Your task to perform on an android device: change text size in settings app Image 0: 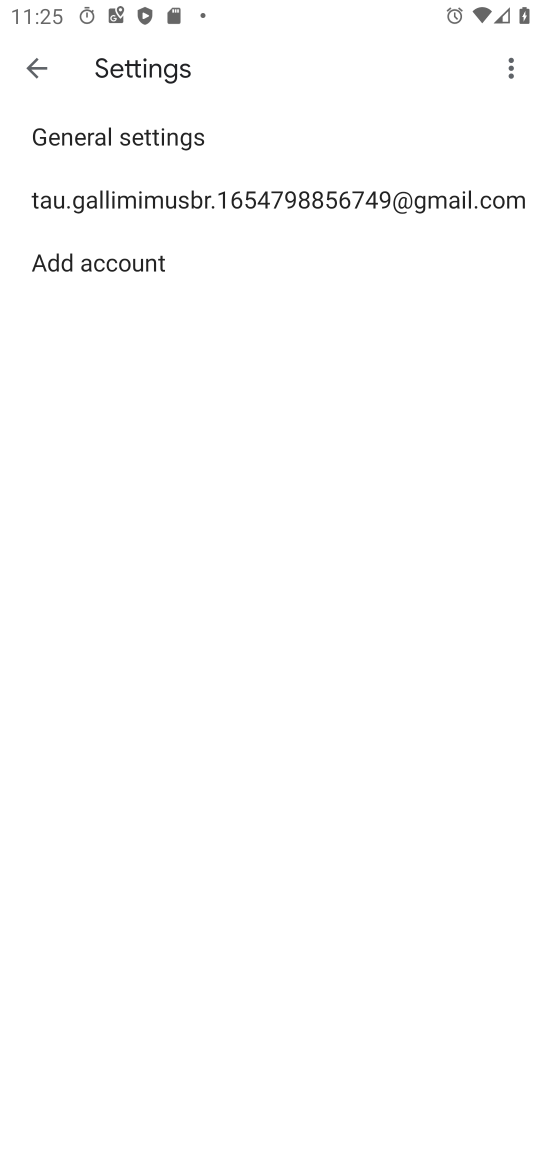
Step 0: press home button
Your task to perform on an android device: change text size in settings app Image 1: 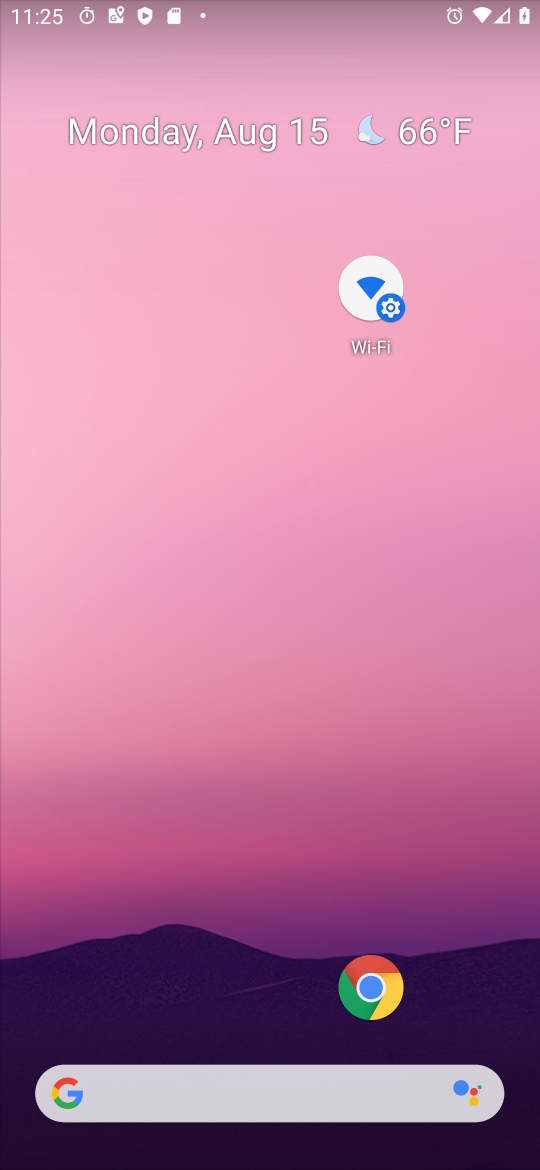
Step 1: drag from (285, 1075) to (217, 266)
Your task to perform on an android device: change text size in settings app Image 2: 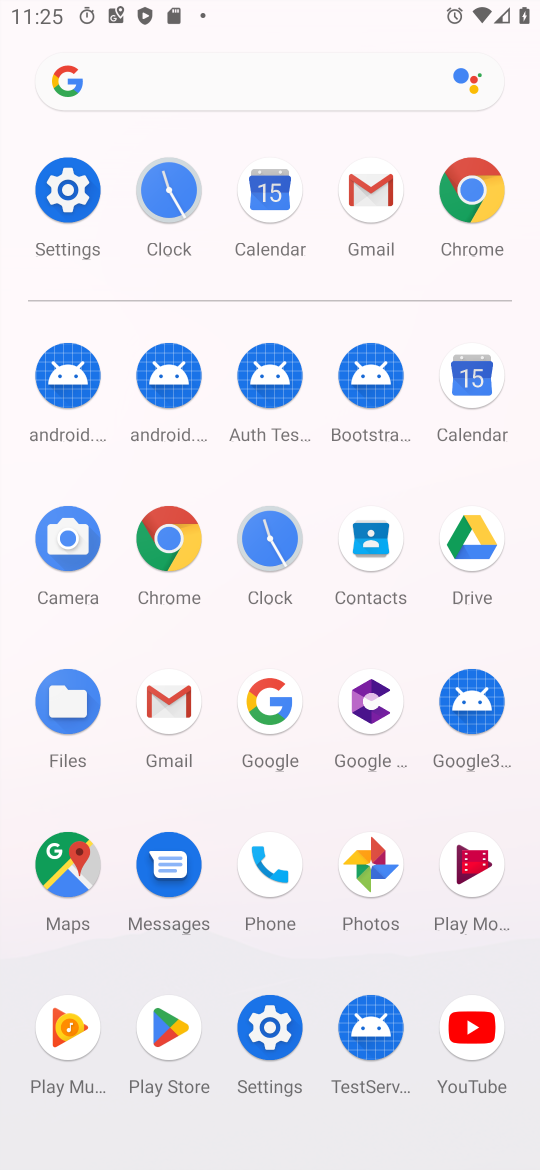
Step 2: click (284, 1045)
Your task to perform on an android device: change text size in settings app Image 3: 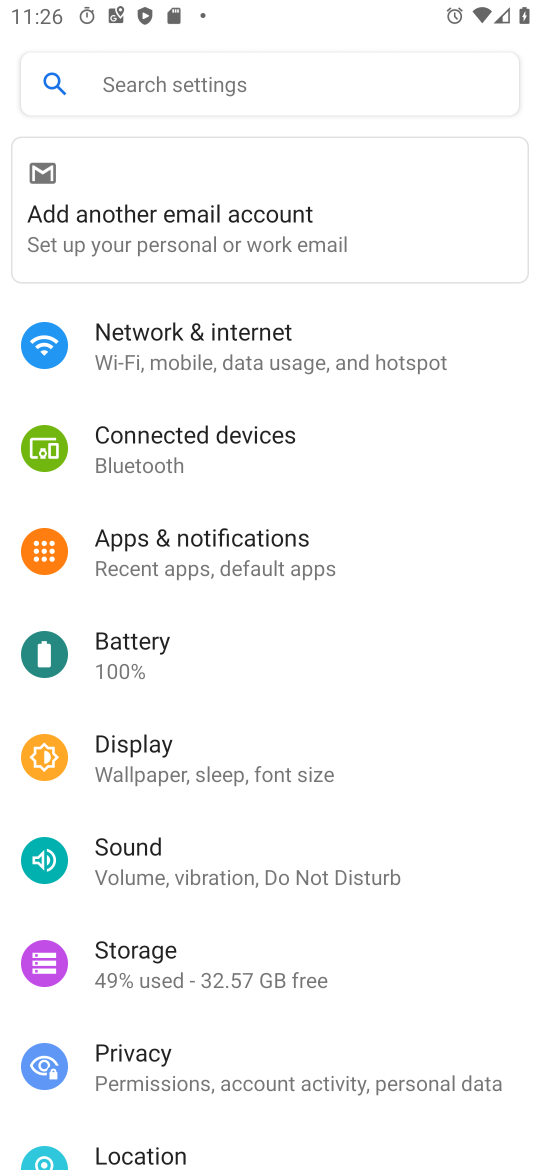
Step 3: click (80, 771)
Your task to perform on an android device: change text size in settings app Image 4: 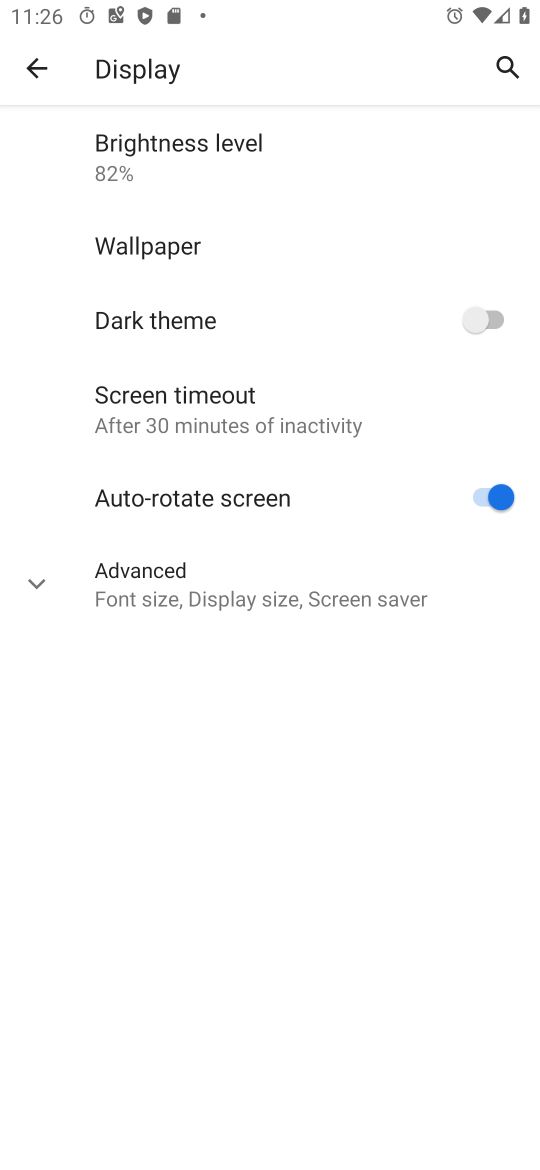
Step 4: click (252, 599)
Your task to perform on an android device: change text size in settings app Image 5: 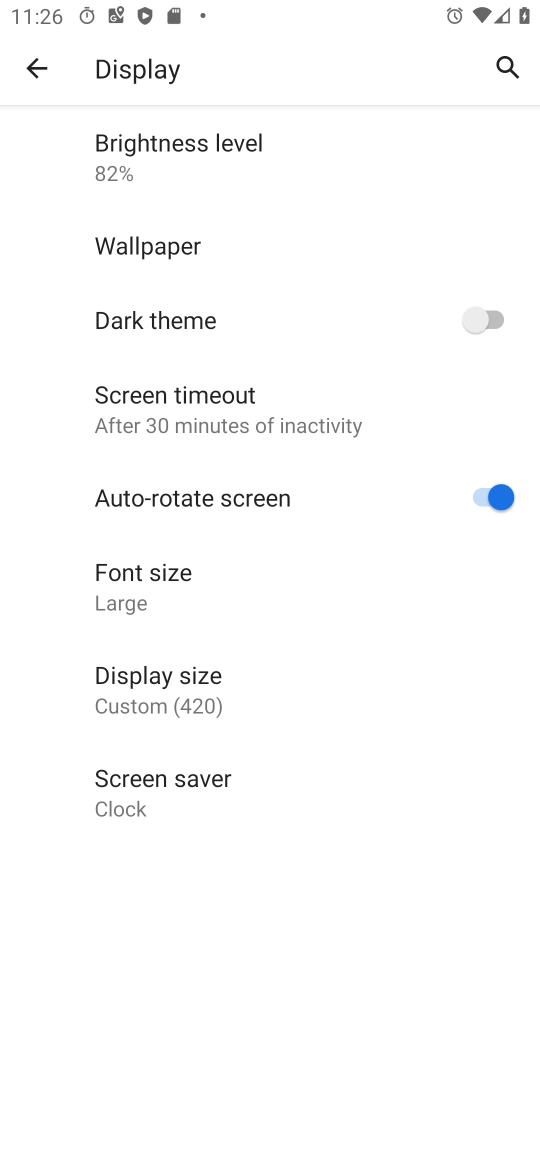
Step 5: click (136, 612)
Your task to perform on an android device: change text size in settings app Image 6: 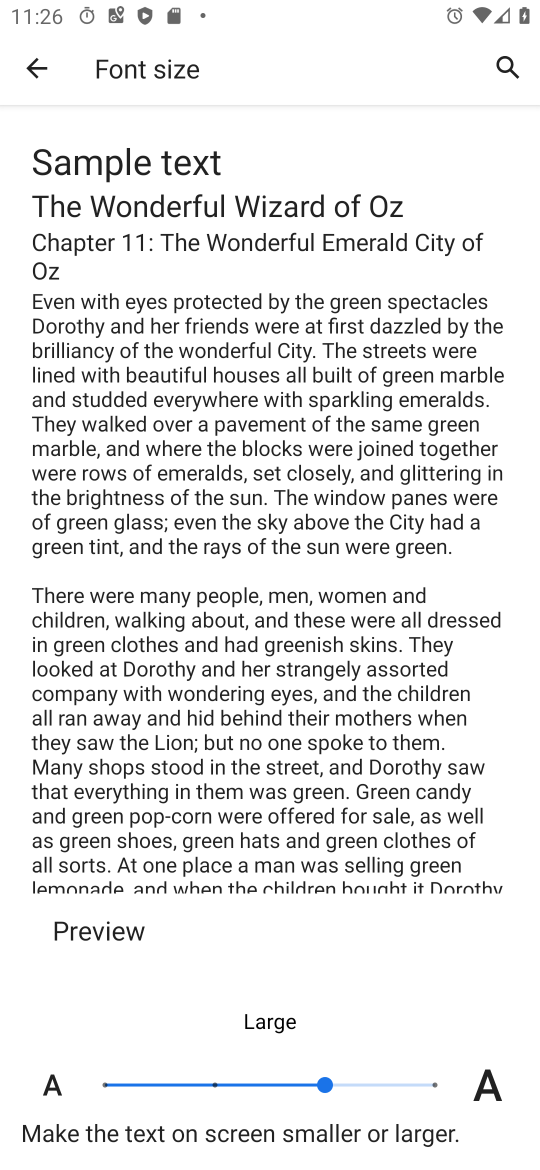
Step 6: click (219, 1093)
Your task to perform on an android device: change text size in settings app Image 7: 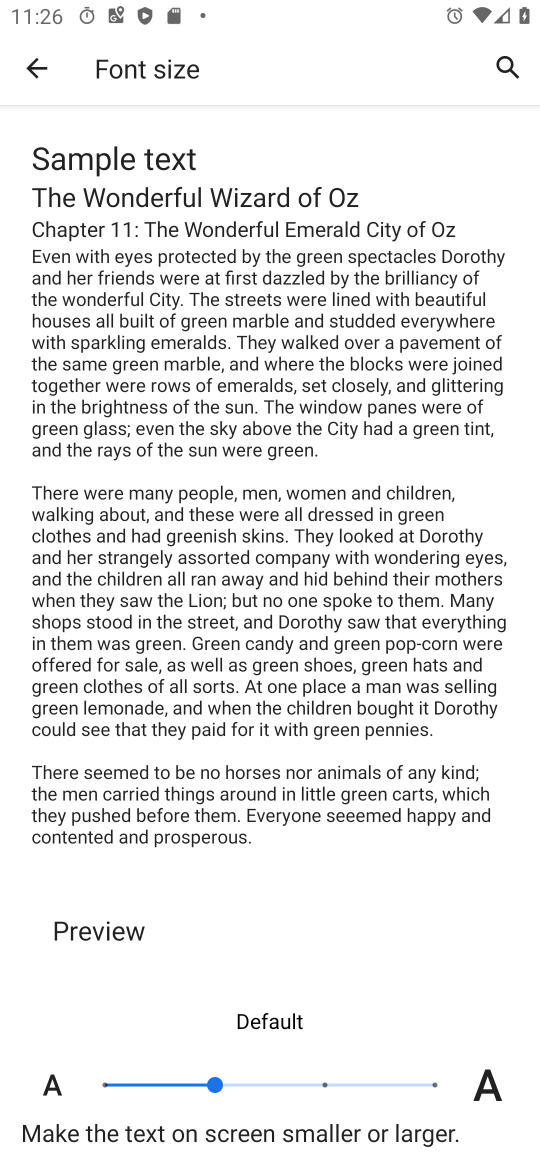
Step 7: task complete